Your task to perform on an android device: Open my contact list Image 0: 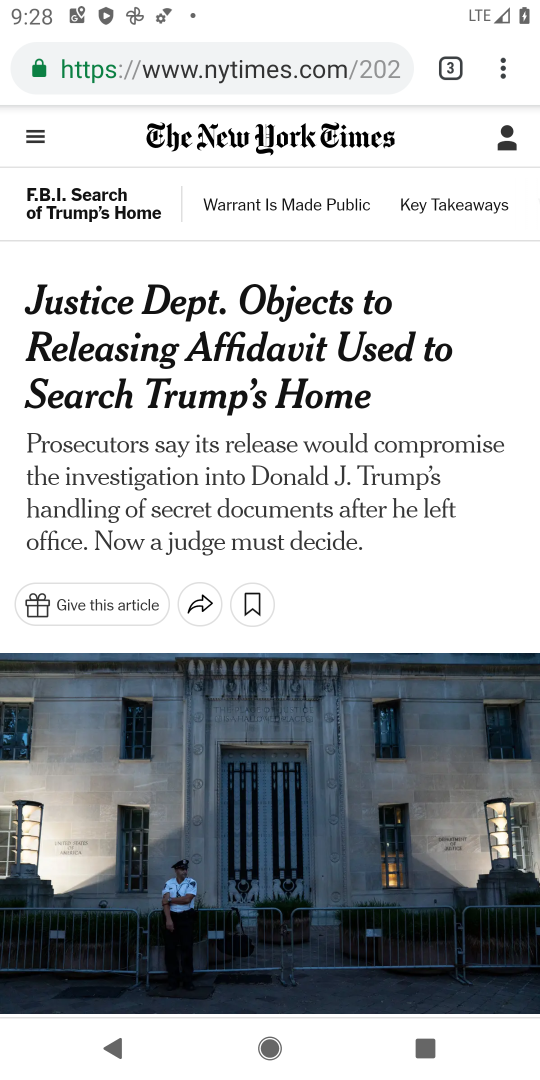
Step 0: press home button
Your task to perform on an android device: Open my contact list Image 1: 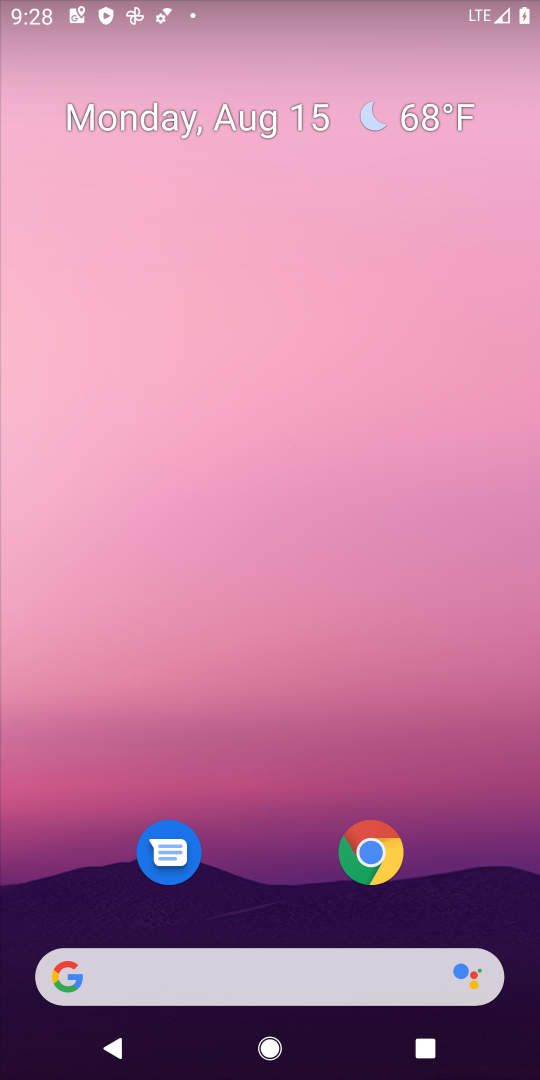
Step 1: drag from (249, 976) to (270, 169)
Your task to perform on an android device: Open my contact list Image 2: 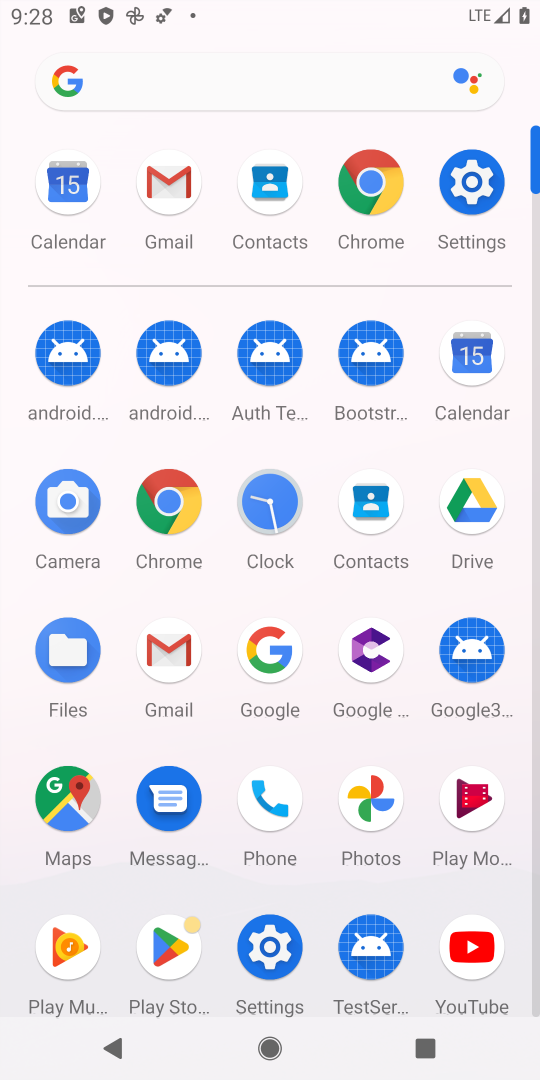
Step 2: click (266, 184)
Your task to perform on an android device: Open my contact list Image 3: 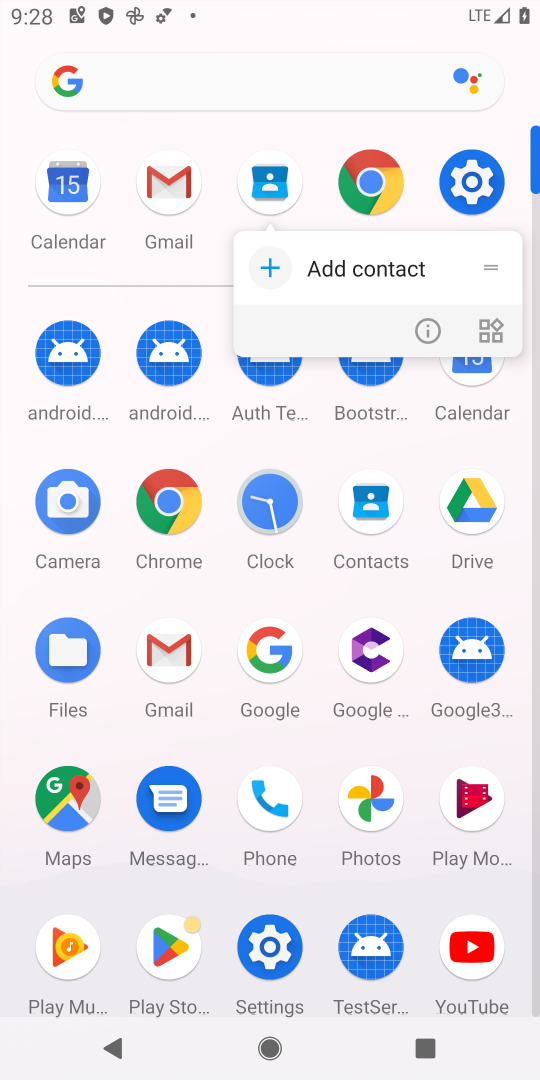
Step 3: click (266, 184)
Your task to perform on an android device: Open my contact list Image 4: 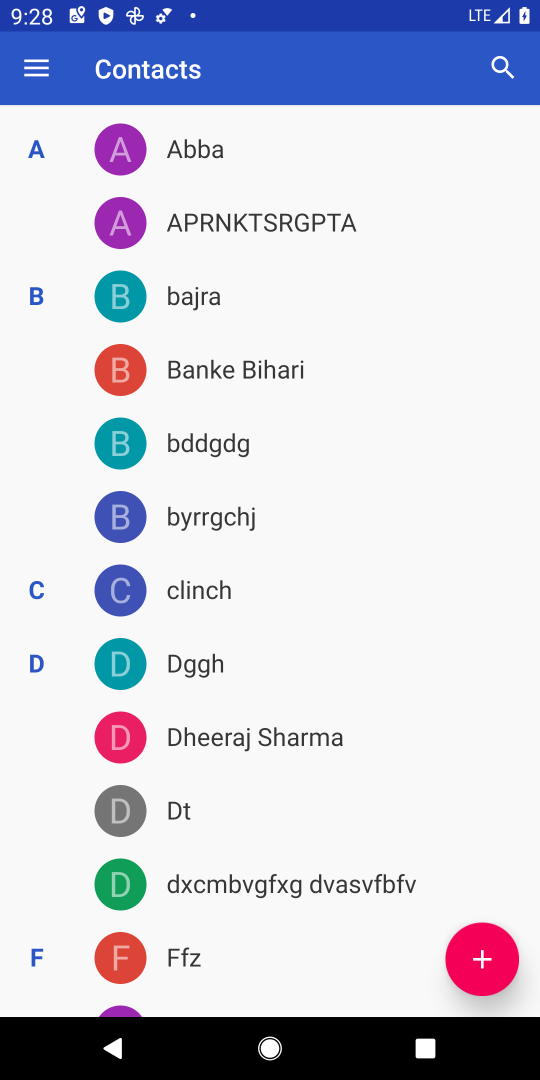
Step 4: task complete